Your task to perform on an android device: remove spam from my inbox in the gmail app Image 0: 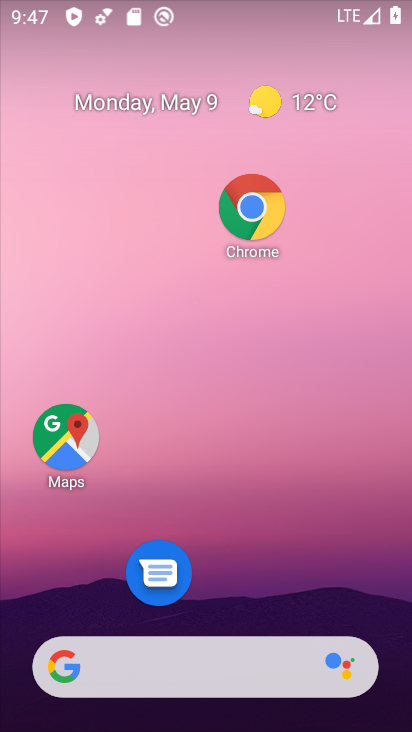
Step 0: drag from (256, 518) to (231, 270)
Your task to perform on an android device: remove spam from my inbox in the gmail app Image 1: 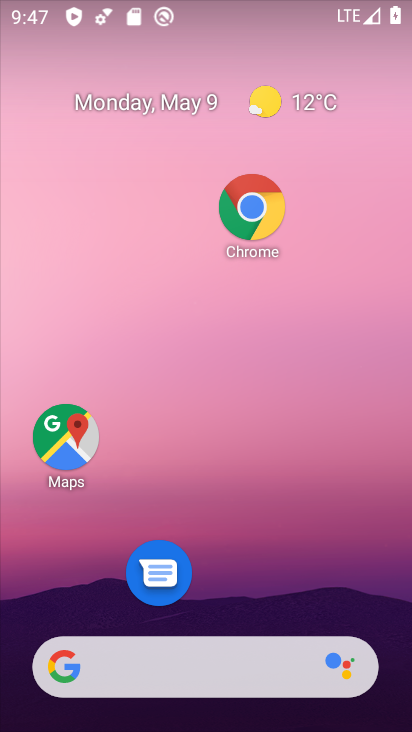
Step 1: drag from (323, 602) to (254, 253)
Your task to perform on an android device: remove spam from my inbox in the gmail app Image 2: 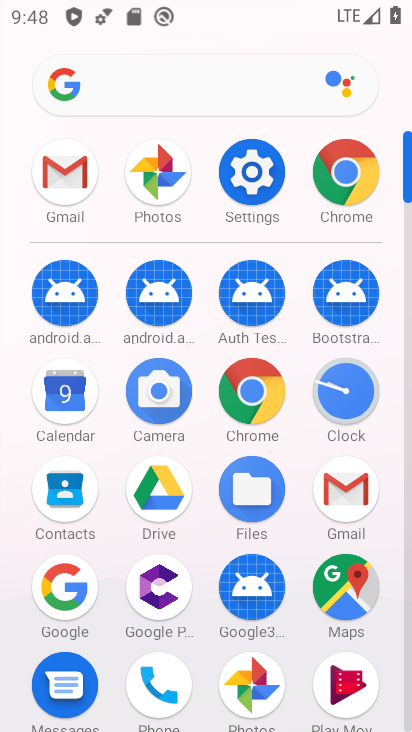
Step 2: click (339, 462)
Your task to perform on an android device: remove spam from my inbox in the gmail app Image 3: 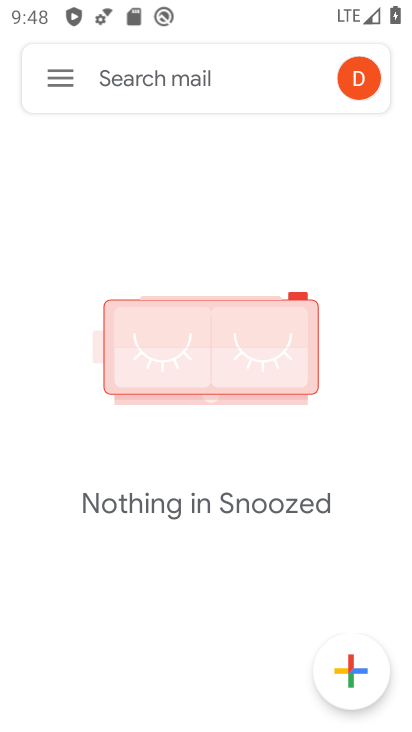
Step 3: click (53, 76)
Your task to perform on an android device: remove spam from my inbox in the gmail app Image 4: 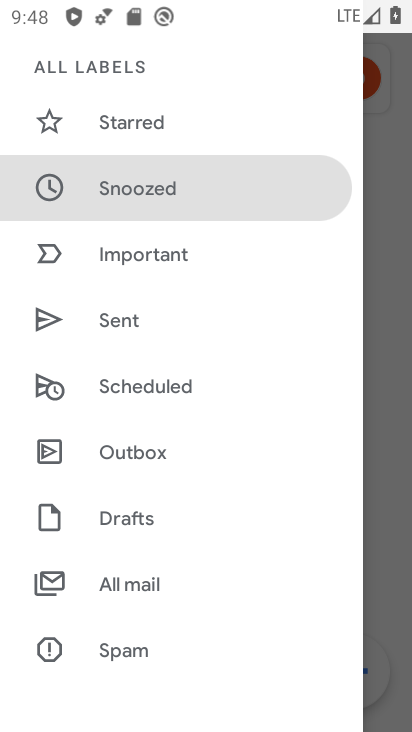
Step 4: click (138, 653)
Your task to perform on an android device: remove spam from my inbox in the gmail app Image 5: 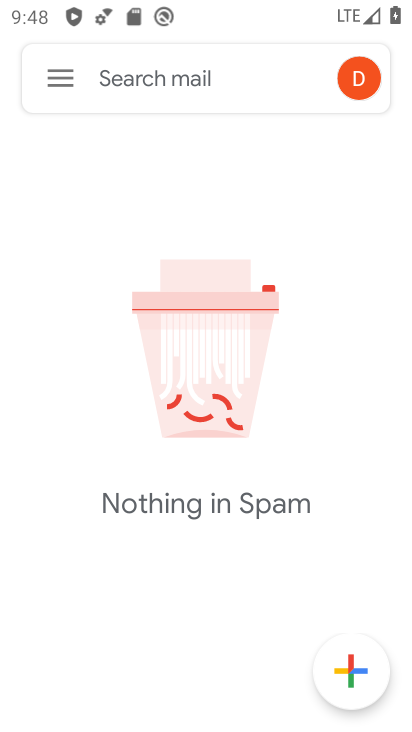
Step 5: click (74, 85)
Your task to perform on an android device: remove spam from my inbox in the gmail app Image 6: 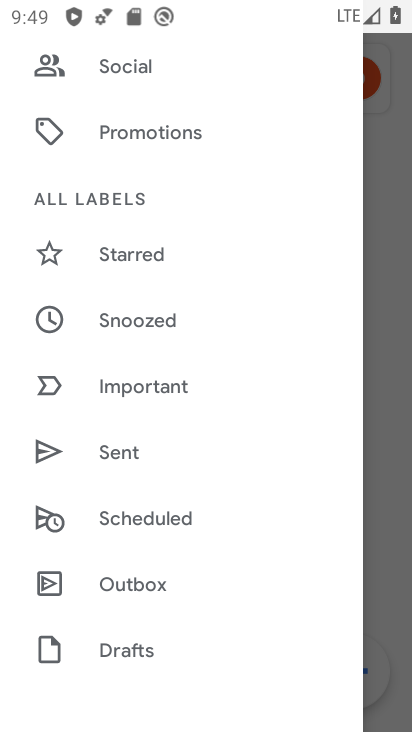
Step 6: task complete